Your task to perform on an android device: Clear the shopping cart on costco.com. Add razer blade to the cart on costco.com Image 0: 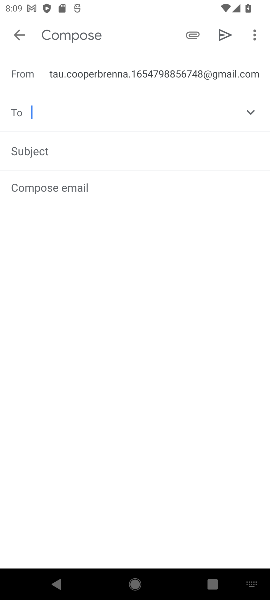
Step 0: press home button
Your task to perform on an android device: Clear the shopping cart on costco.com. Add razer blade to the cart on costco.com Image 1: 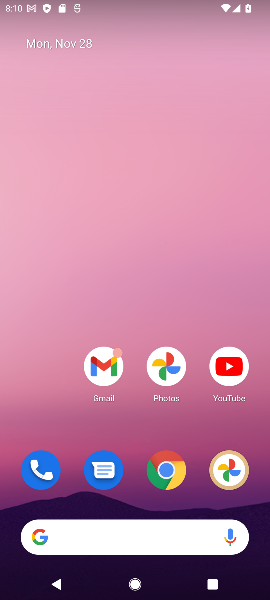
Step 1: click (119, 544)
Your task to perform on an android device: Clear the shopping cart on costco.com. Add razer blade to the cart on costco.com Image 2: 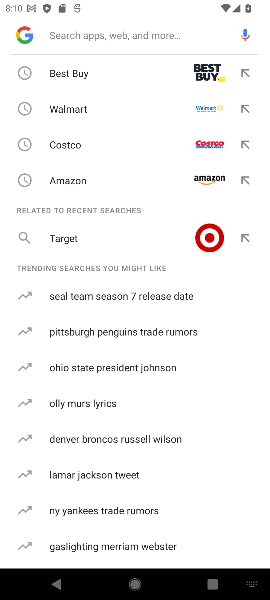
Step 2: click (90, 145)
Your task to perform on an android device: Clear the shopping cart on costco.com. Add razer blade to the cart on costco.com Image 3: 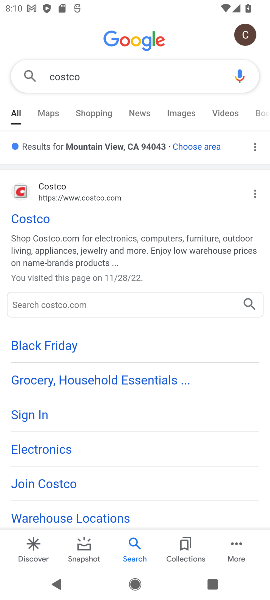
Step 3: click (30, 218)
Your task to perform on an android device: Clear the shopping cart on costco.com. Add razer blade to the cart on costco.com Image 4: 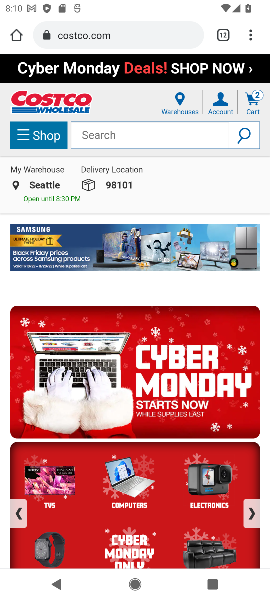
Step 4: click (254, 105)
Your task to perform on an android device: Clear the shopping cart on costco.com. Add razer blade to the cart on costco.com Image 5: 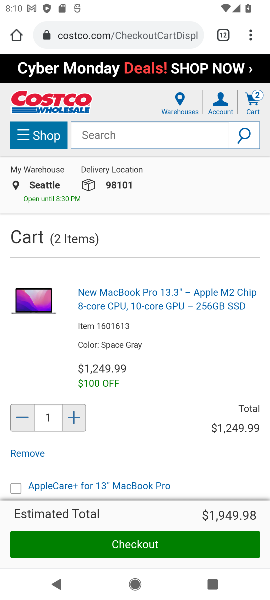
Step 5: drag from (170, 461) to (185, 311)
Your task to perform on an android device: Clear the shopping cart on costco.com. Add razer blade to the cart on costco.com Image 6: 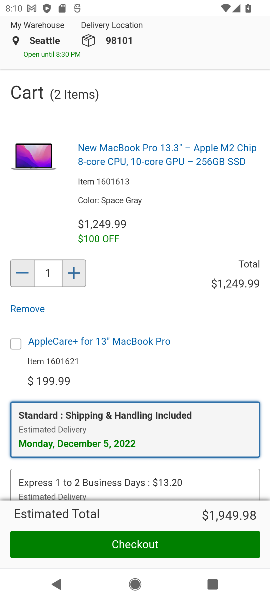
Step 6: click (23, 308)
Your task to perform on an android device: Clear the shopping cart on costco.com. Add razer blade to the cart on costco.com Image 7: 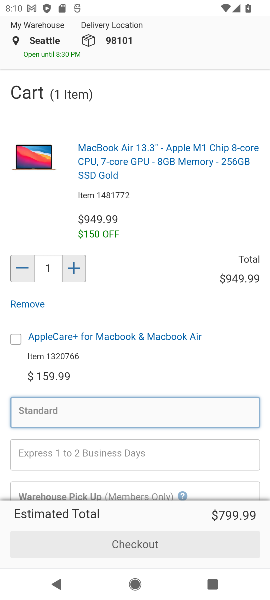
Step 7: click (36, 308)
Your task to perform on an android device: Clear the shopping cart on costco.com. Add razer blade to the cart on costco.com Image 8: 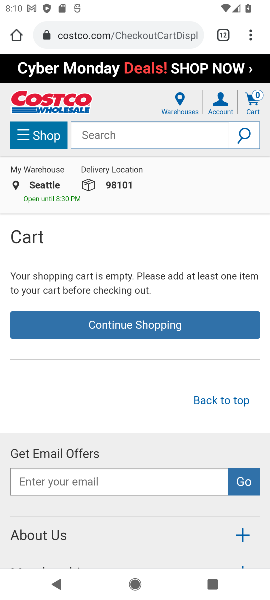
Step 8: click (134, 134)
Your task to perform on an android device: Clear the shopping cart on costco.com. Add razer blade to the cart on costco.com Image 9: 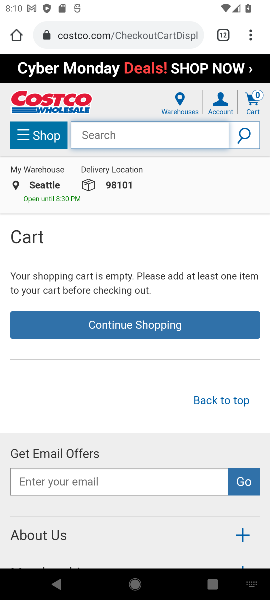
Step 9: type "razer blade "
Your task to perform on an android device: Clear the shopping cart on costco.com. Add razer blade to the cart on costco.com Image 10: 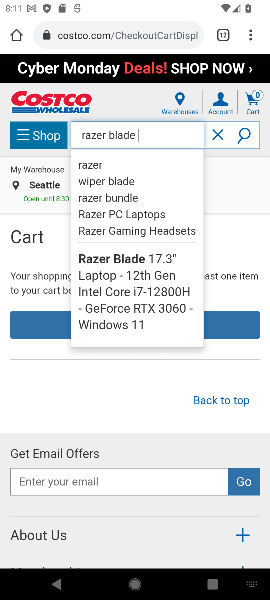
Step 10: click (88, 164)
Your task to perform on an android device: Clear the shopping cart on costco.com. Add razer blade to the cart on costco.com Image 11: 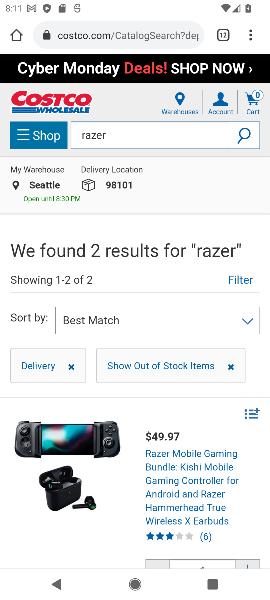
Step 11: drag from (130, 482) to (105, 325)
Your task to perform on an android device: Clear the shopping cart on costco.com. Add razer blade to the cart on costco.com Image 12: 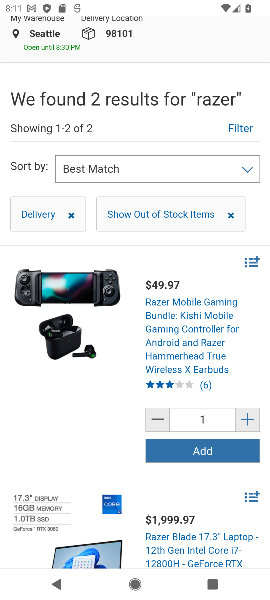
Step 12: click (204, 454)
Your task to perform on an android device: Clear the shopping cart on costco.com. Add razer blade to the cart on costco.com Image 13: 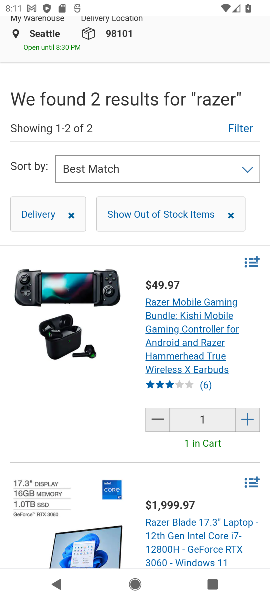
Step 13: task complete